Your task to perform on an android device: turn off smart reply in the gmail app Image 0: 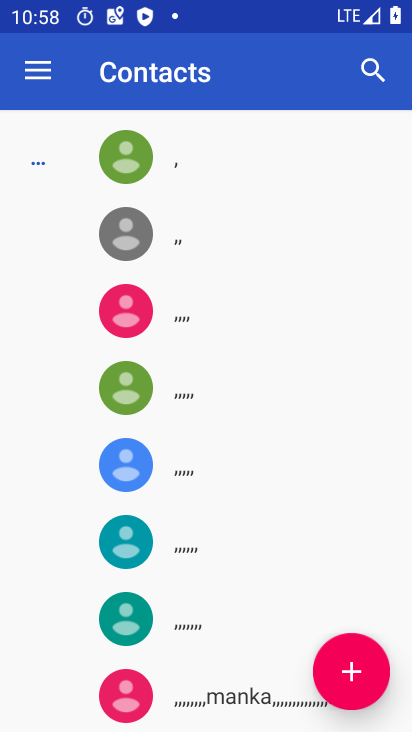
Step 0: press home button
Your task to perform on an android device: turn off smart reply in the gmail app Image 1: 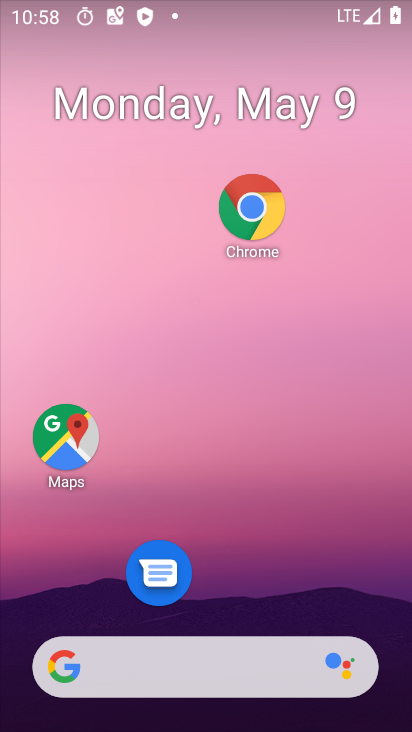
Step 1: drag from (236, 644) to (223, 192)
Your task to perform on an android device: turn off smart reply in the gmail app Image 2: 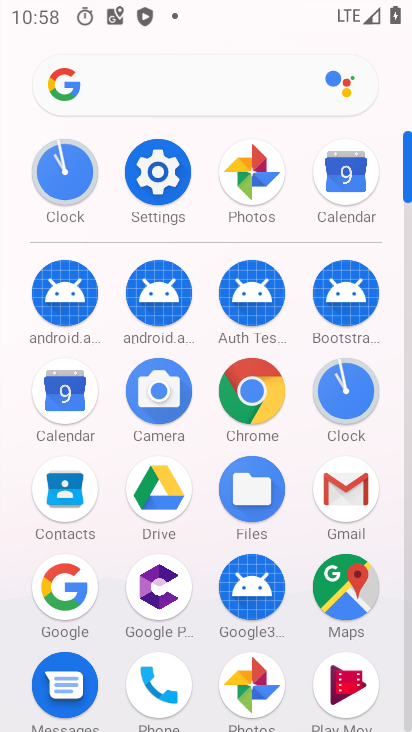
Step 2: click (330, 487)
Your task to perform on an android device: turn off smart reply in the gmail app Image 3: 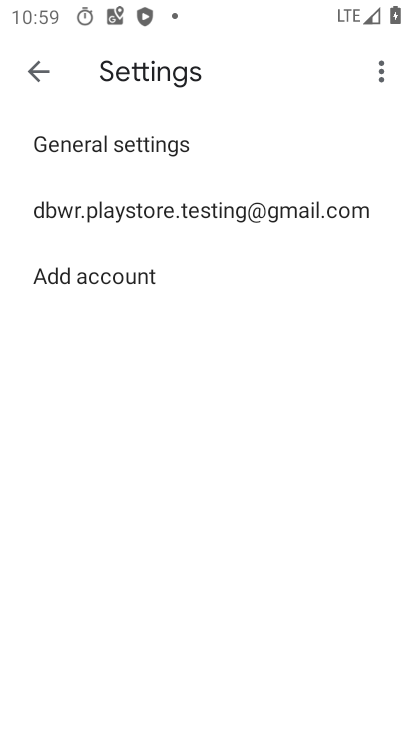
Step 3: click (278, 223)
Your task to perform on an android device: turn off smart reply in the gmail app Image 4: 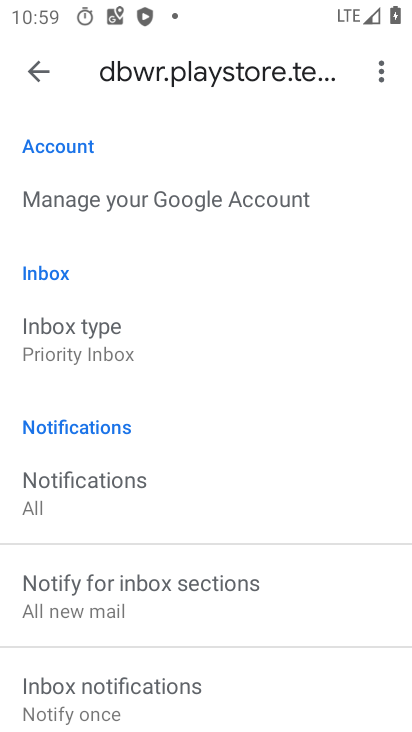
Step 4: drag from (109, 543) to (155, 85)
Your task to perform on an android device: turn off smart reply in the gmail app Image 5: 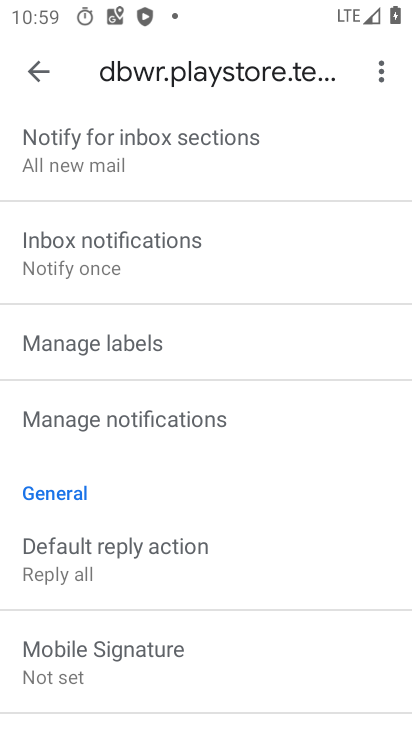
Step 5: drag from (115, 543) to (201, 93)
Your task to perform on an android device: turn off smart reply in the gmail app Image 6: 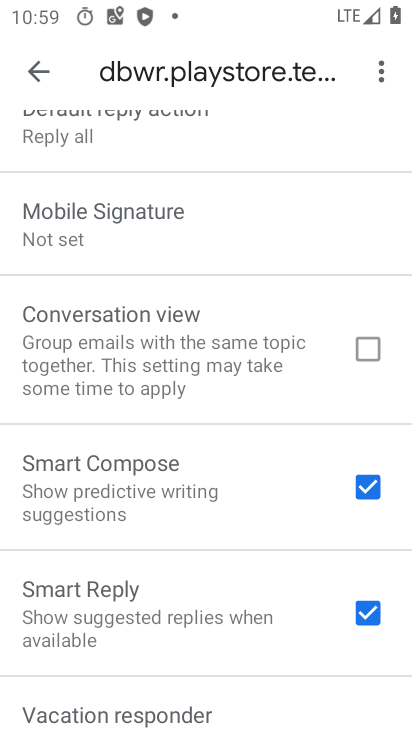
Step 6: click (364, 624)
Your task to perform on an android device: turn off smart reply in the gmail app Image 7: 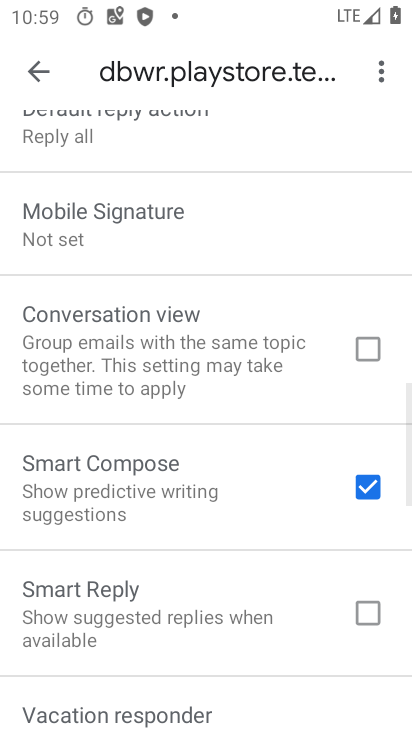
Step 7: task complete